Your task to perform on an android device: check data usage Image 0: 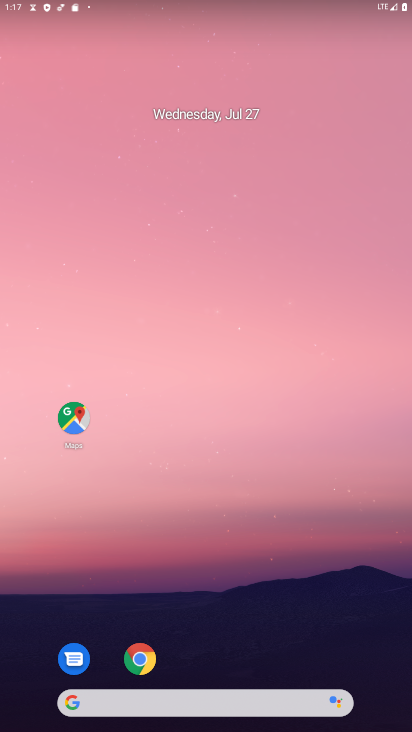
Step 0: drag from (213, 719) to (213, 146)
Your task to perform on an android device: check data usage Image 1: 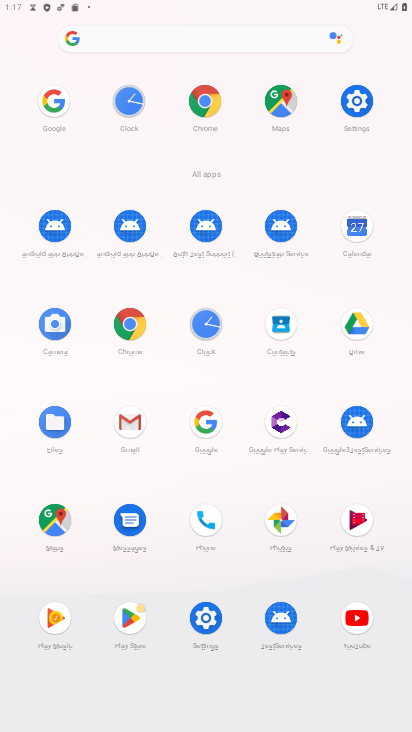
Step 1: click (351, 104)
Your task to perform on an android device: check data usage Image 2: 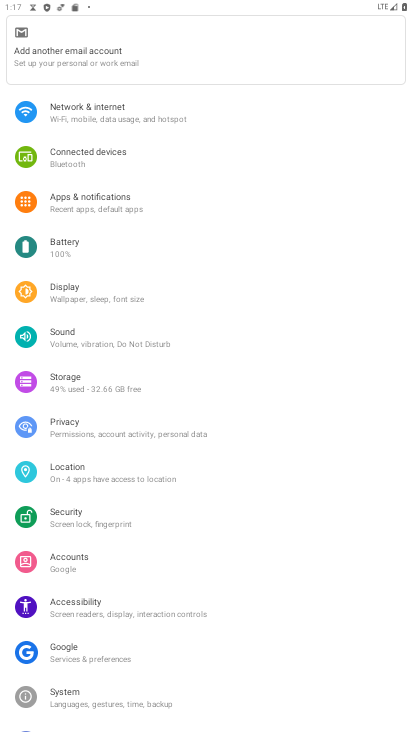
Step 2: click (111, 118)
Your task to perform on an android device: check data usage Image 3: 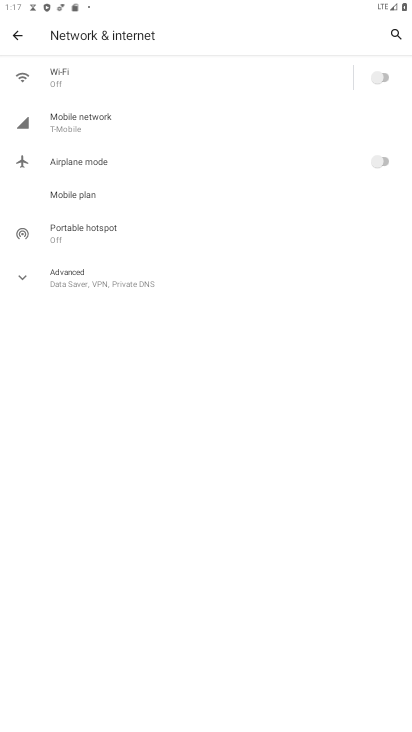
Step 3: click (75, 114)
Your task to perform on an android device: check data usage Image 4: 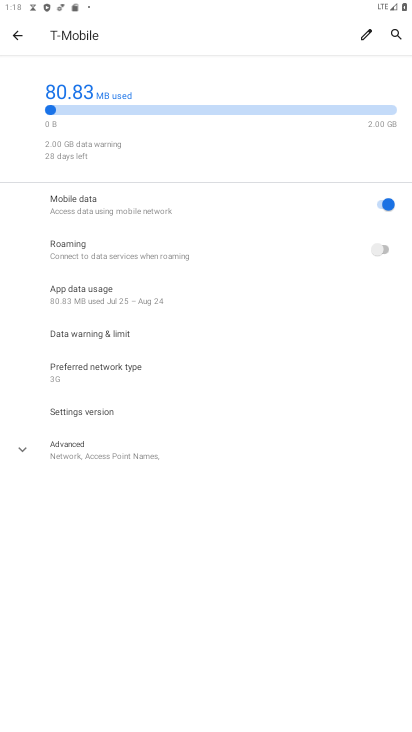
Step 4: click (84, 295)
Your task to perform on an android device: check data usage Image 5: 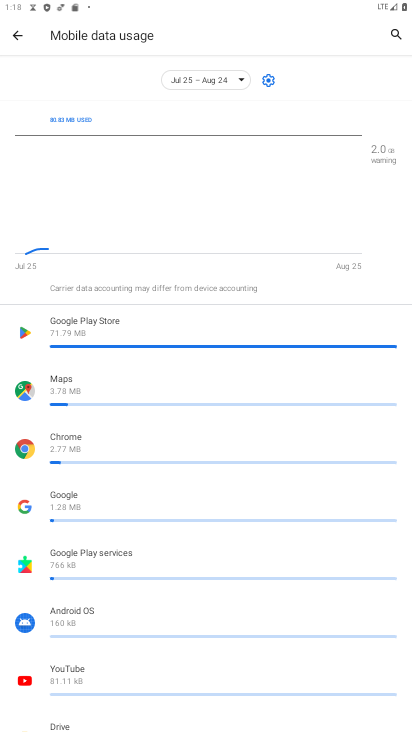
Step 5: task complete